Your task to perform on an android device: check the backup settings in the google photos Image 0: 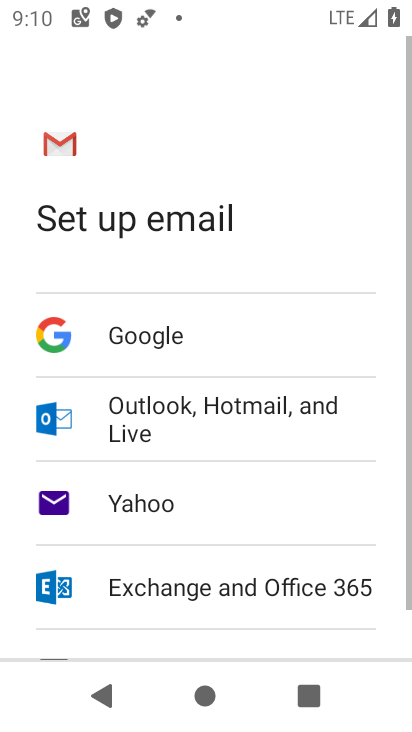
Step 0: press home button
Your task to perform on an android device: check the backup settings in the google photos Image 1: 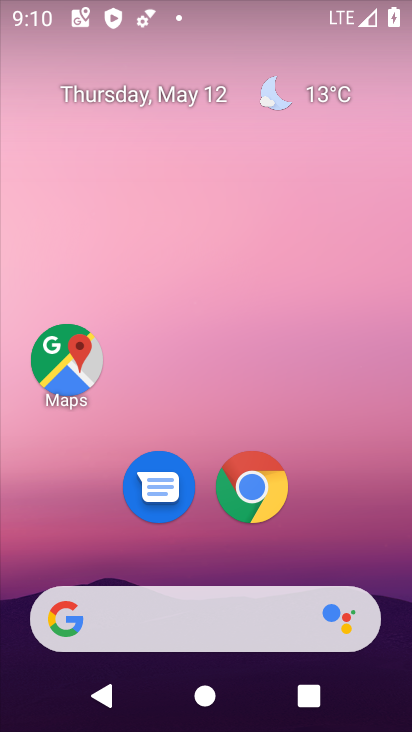
Step 1: drag from (330, 577) to (322, 0)
Your task to perform on an android device: check the backup settings in the google photos Image 2: 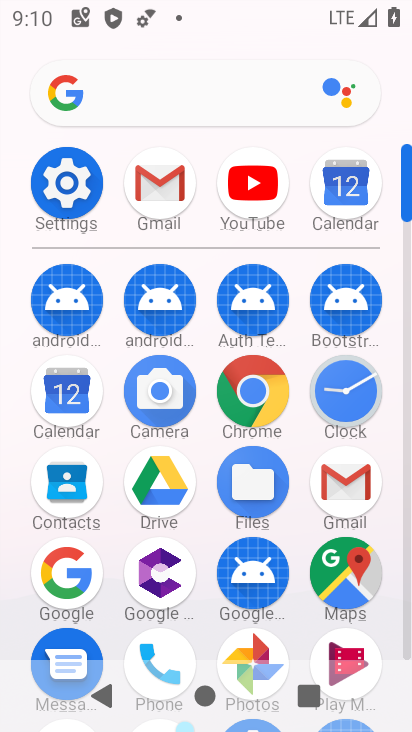
Step 2: click (248, 646)
Your task to perform on an android device: check the backup settings in the google photos Image 3: 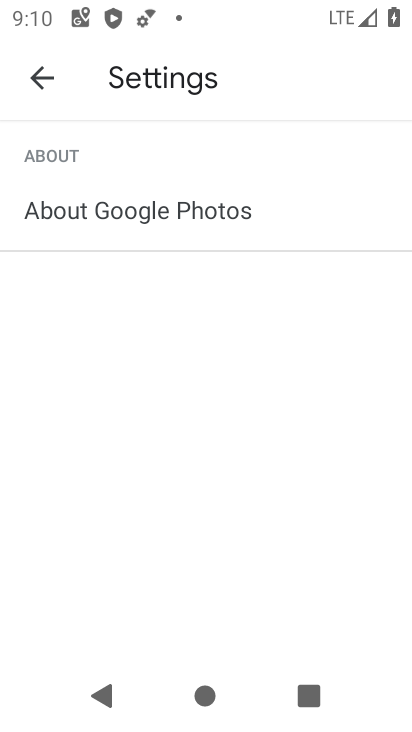
Step 3: click (42, 79)
Your task to perform on an android device: check the backup settings in the google photos Image 4: 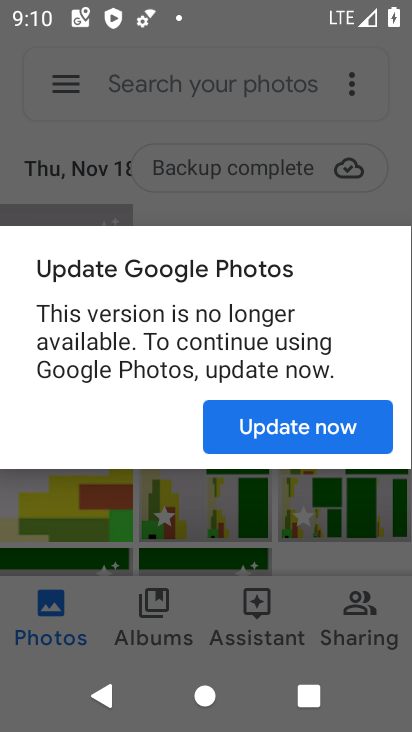
Step 4: click (242, 421)
Your task to perform on an android device: check the backup settings in the google photos Image 5: 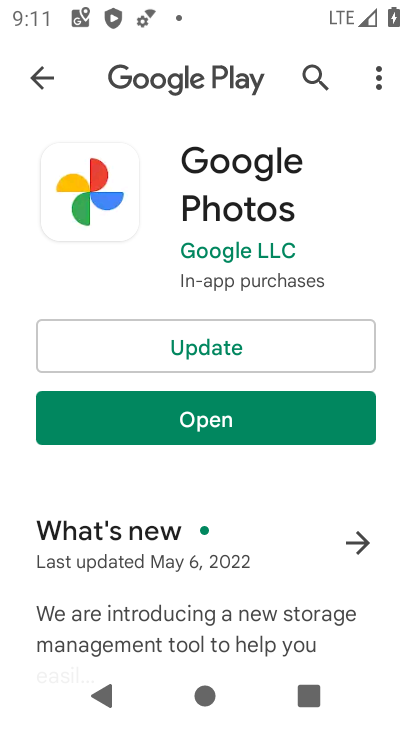
Step 5: click (200, 421)
Your task to perform on an android device: check the backup settings in the google photos Image 6: 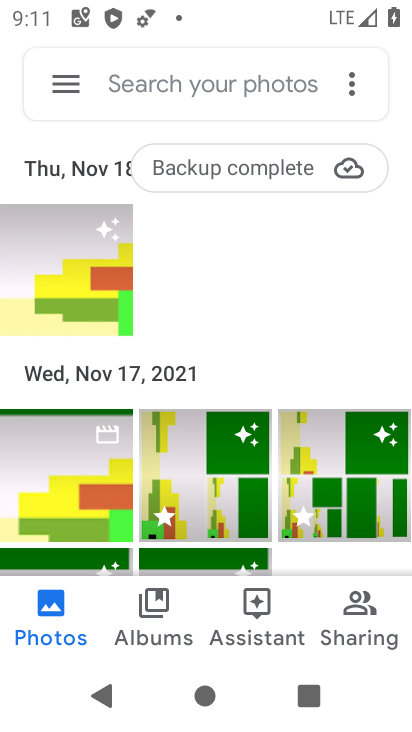
Step 6: click (62, 90)
Your task to perform on an android device: check the backup settings in the google photos Image 7: 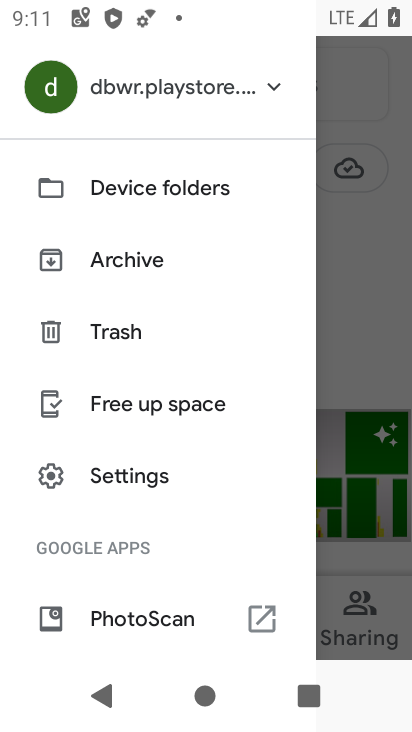
Step 7: click (138, 476)
Your task to perform on an android device: check the backup settings in the google photos Image 8: 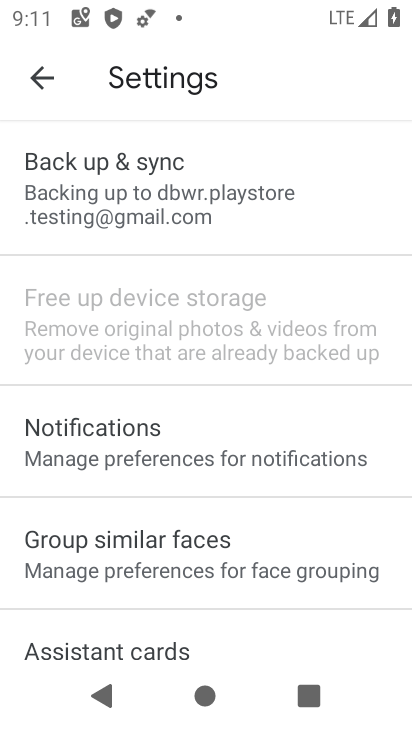
Step 8: click (111, 204)
Your task to perform on an android device: check the backup settings in the google photos Image 9: 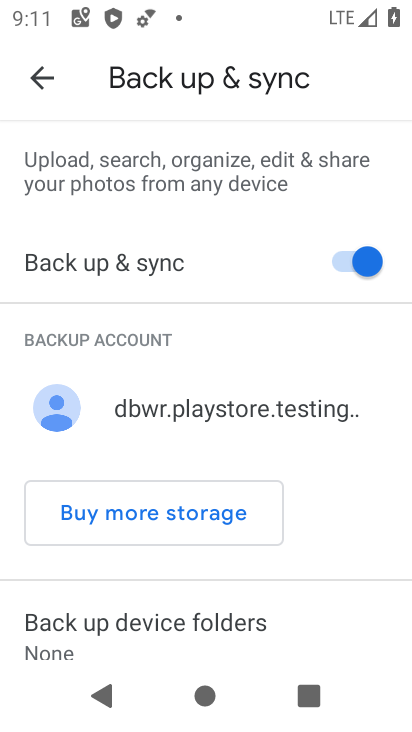
Step 9: task complete